Your task to perform on an android device: turn off picture-in-picture Image 0: 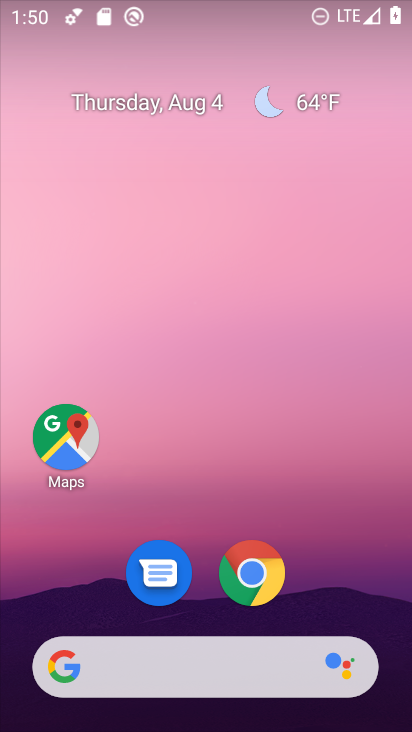
Step 0: click (258, 568)
Your task to perform on an android device: turn off picture-in-picture Image 1: 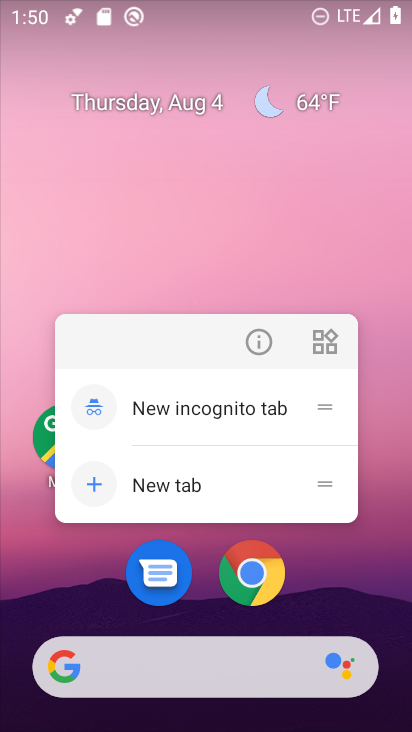
Step 1: click (256, 337)
Your task to perform on an android device: turn off picture-in-picture Image 2: 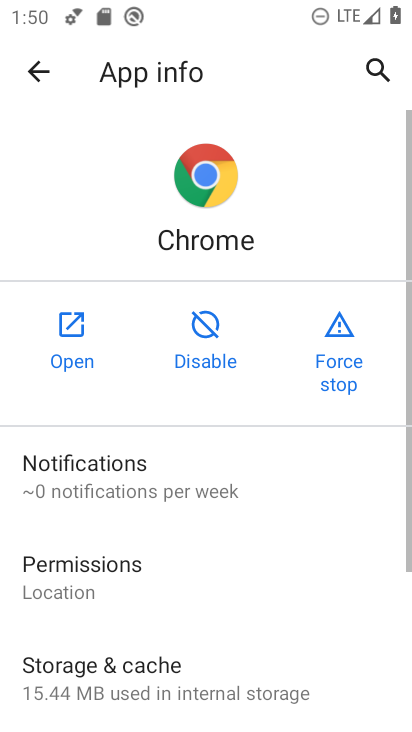
Step 2: drag from (263, 580) to (235, 107)
Your task to perform on an android device: turn off picture-in-picture Image 3: 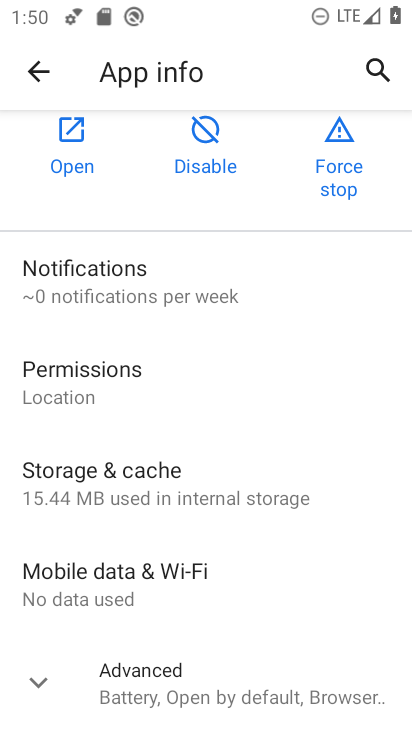
Step 3: drag from (269, 562) to (263, 152)
Your task to perform on an android device: turn off picture-in-picture Image 4: 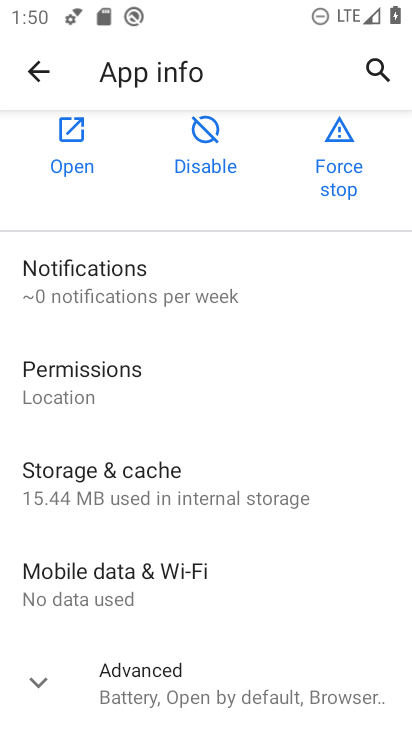
Step 4: click (135, 673)
Your task to perform on an android device: turn off picture-in-picture Image 5: 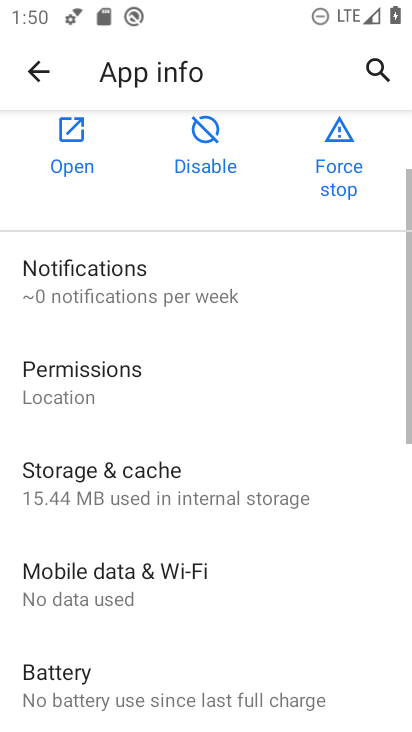
Step 5: drag from (283, 668) to (251, 175)
Your task to perform on an android device: turn off picture-in-picture Image 6: 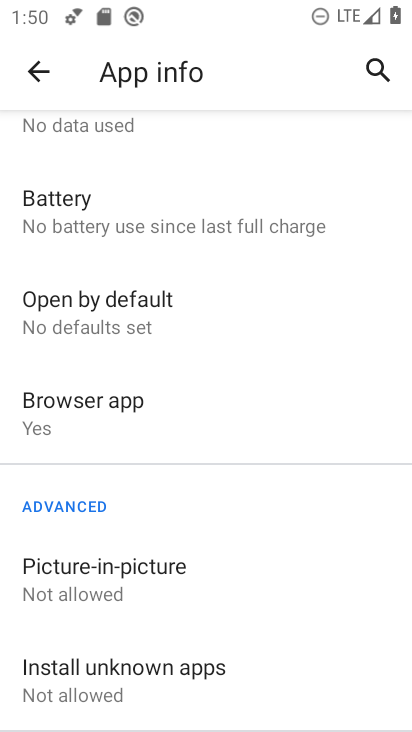
Step 6: click (132, 574)
Your task to perform on an android device: turn off picture-in-picture Image 7: 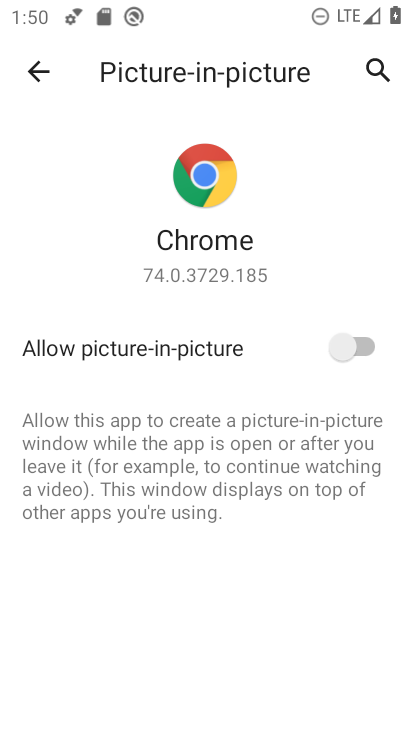
Step 7: task complete